Your task to perform on an android device: Open calendar and show me the third week of next month Image 0: 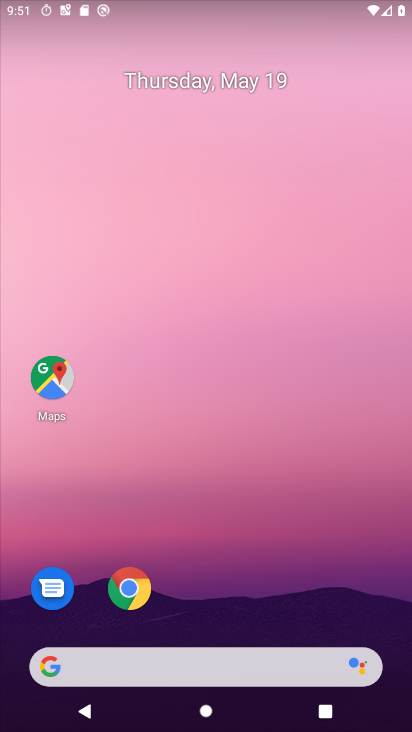
Step 0: drag from (122, 654) to (251, 226)
Your task to perform on an android device: Open calendar and show me the third week of next month Image 1: 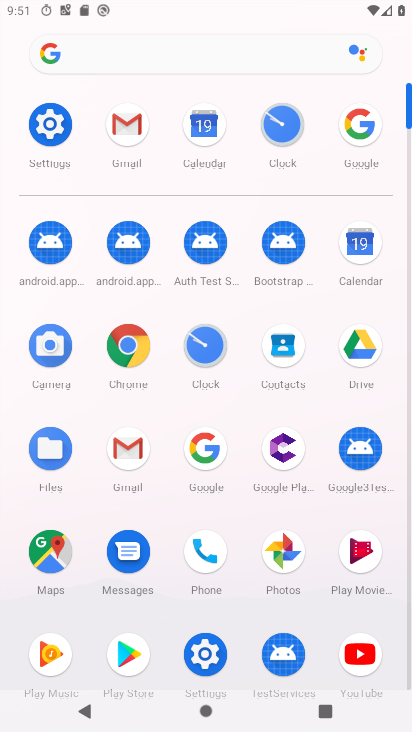
Step 1: click (206, 131)
Your task to perform on an android device: Open calendar and show me the third week of next month Image 2: 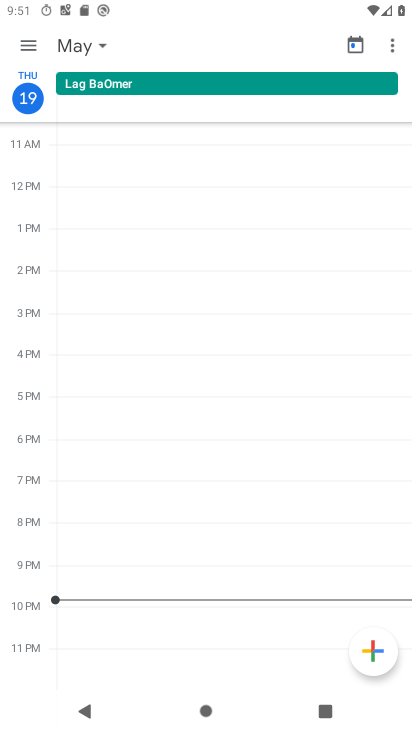
Step 2: click (76, 54)
Your task to perform on an android device: Open calendar and show me the third week of next month Image 3: 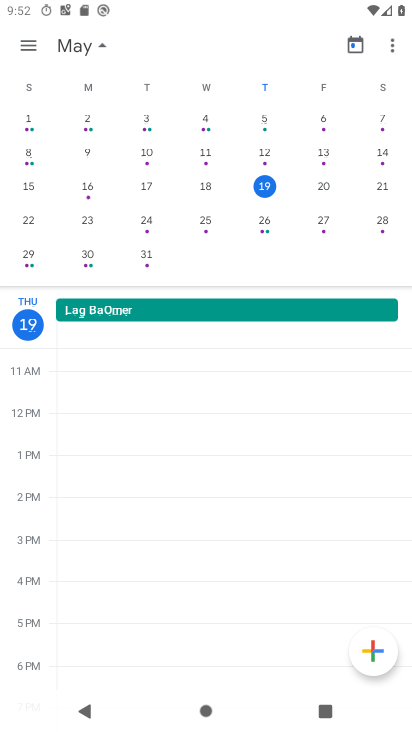
Step 3: drag from (361, 203) to (76, 161)
Your task to perform on an android device: Open calendar and show me the third week of next month Image 4: 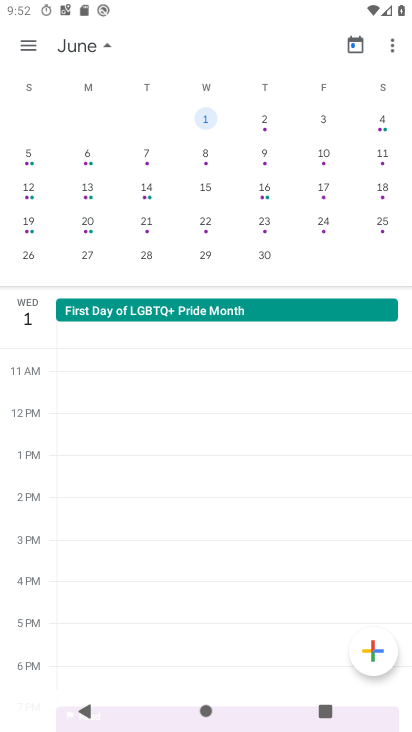
Step 4: click (33, 190)
Your task to perform on an android device: Open calendar and show me the third week of next month Image 5: 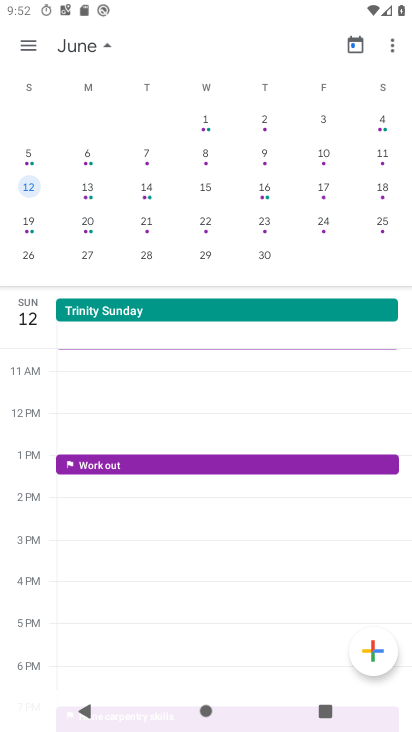
Step 5: click (34, 49)
Your task to perform on an android device: Open calendar and show me the third week of next month Image 6: 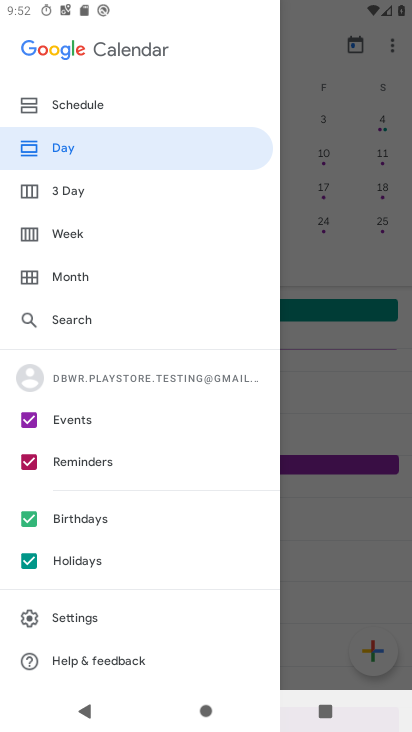
Step 6: click (93, 237)
Your task to perform on an android device: Open calendar and show me the third week of next month Image 7: 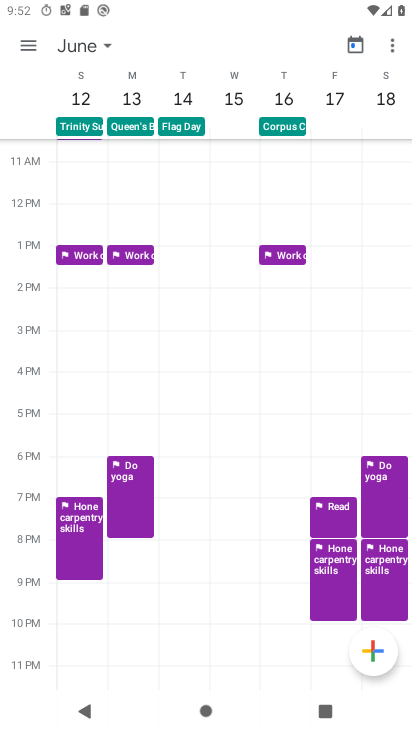
Step 7: task complete